Your task to perform on an android device: move an email to a new category in the gmail app Image 0: 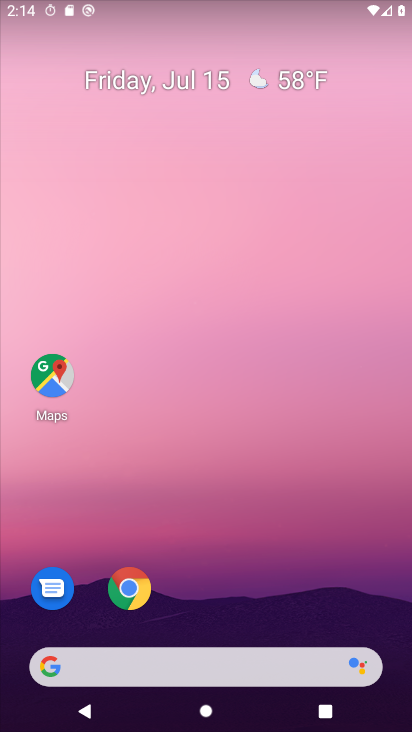
Step 0: drag from (233, 592) to (191, 91)
Your task to perform on an android device: move an email to a new category in the gmail app Image 1: 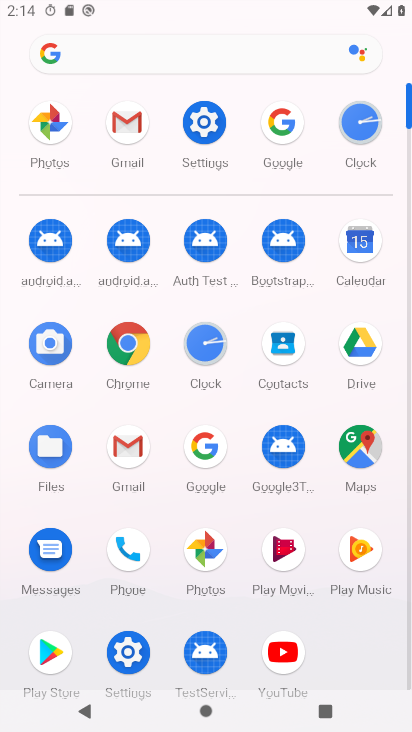
Step 1: click (115, 118)
Your task to perform on an android device: move an email to a new category in the gmail app Image 2: 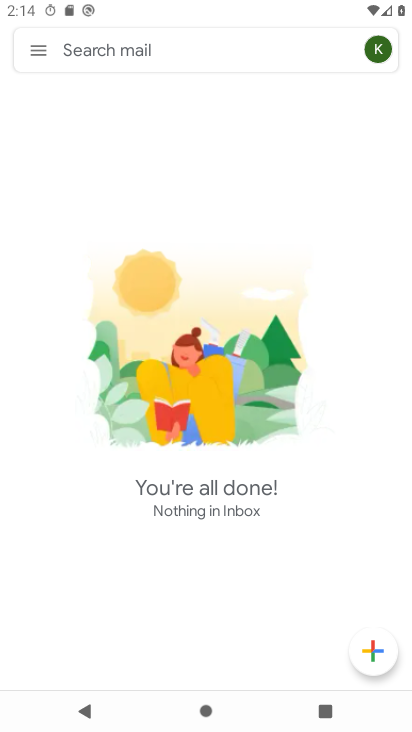
Step 2: click (42, 58)
Your task to perform on an android device: move an email to a new category in the gmail app Image 3: 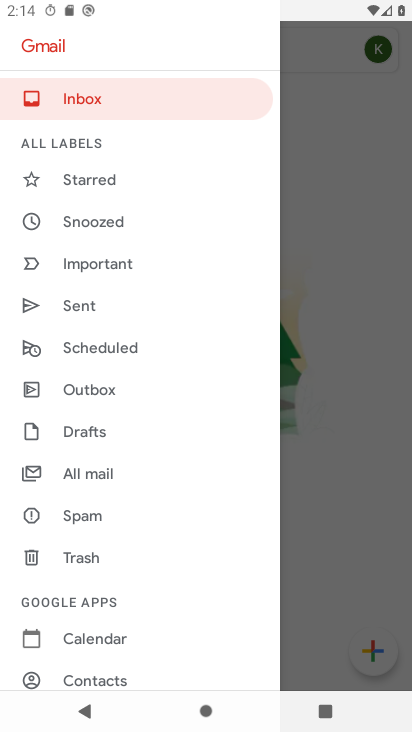
Step 3: click (120, 475)
Your task to perform on an android device: move an email to a new category in the gmail app Image 4: 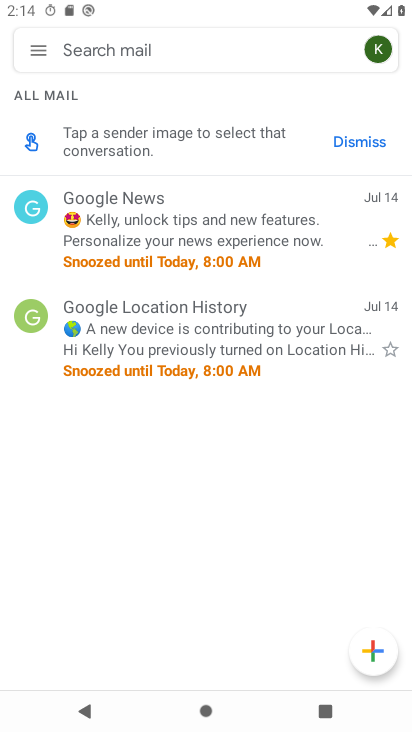
Step 4: click (133, 201)
Your task to perform on an android device: move an email to a new category in the gmail app Image 5: 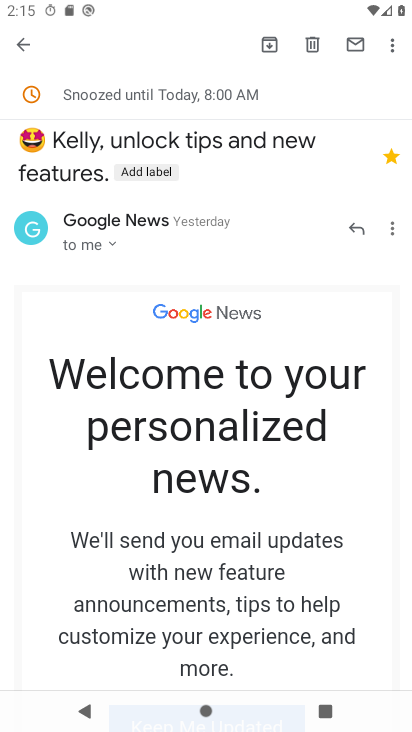
Step 5: click (394, 42)
Your task to perform on an android device: move an email to a new category in the gmail app Image 6: 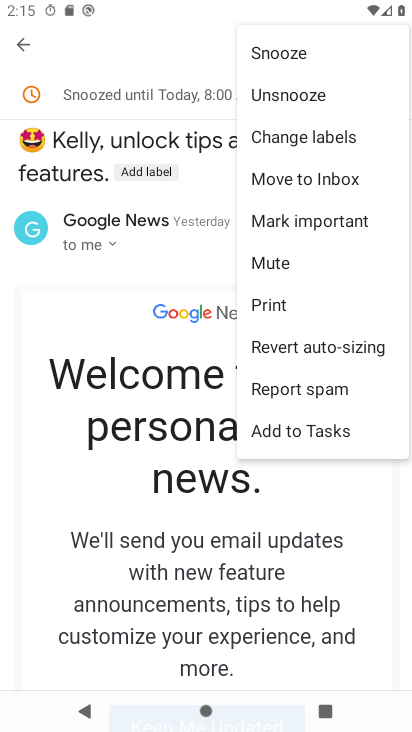
Step 6: click (296, 94)
Your task to perform on an android device: move an email to a new category in the gmail app Image 7: 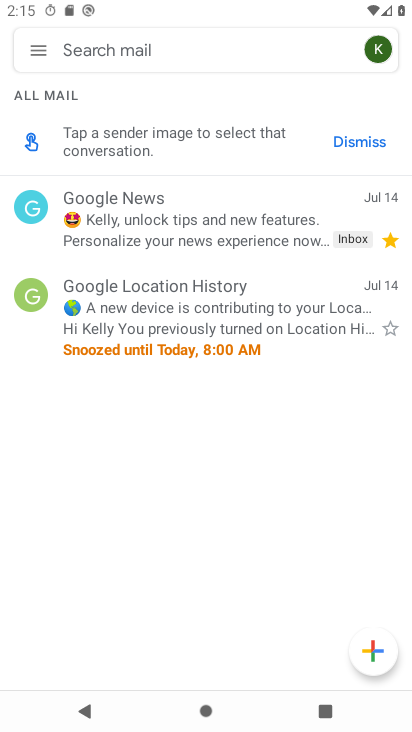
Step 7: task complete